Your task to perform on an android device: see tabs open on other devices in the chrome app Image 0: 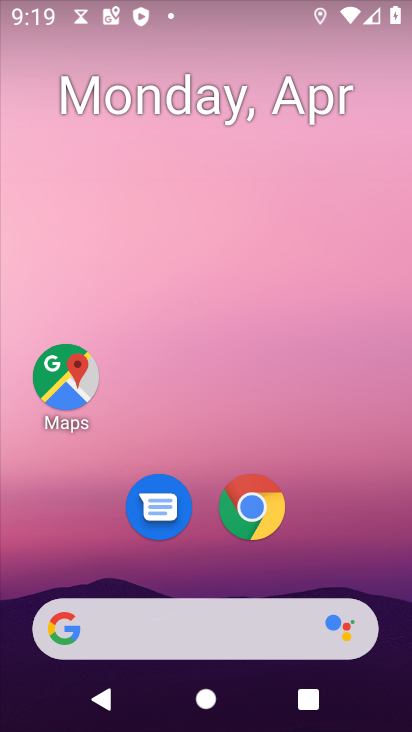
Step 0: click (264, 505)
Your task to perform on an android device: see tabs open on other devices in the chrome app Image 1: 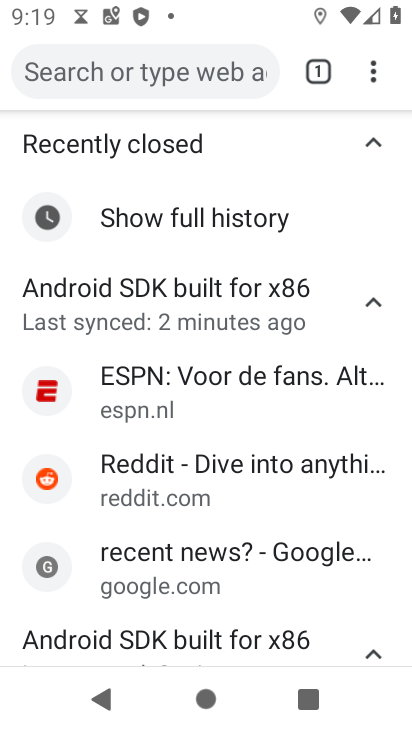
Step 1: click (369, 80)
Your task to perform on an android device: see tabs open on other devices in the chrome app Image 2: 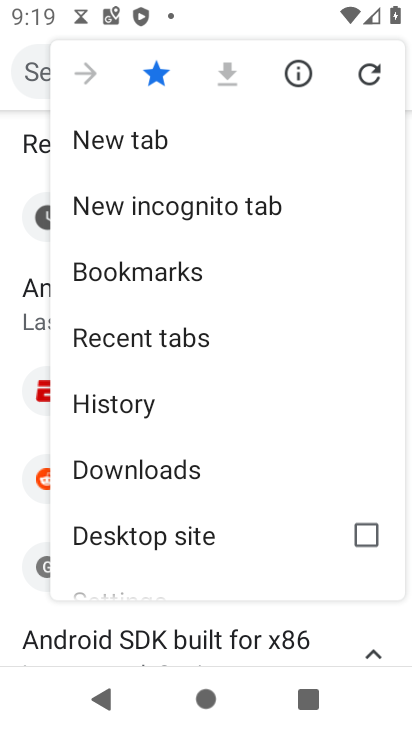
Step 2: click (194, 342)
Your task to perform on an android device: see tabs open on other devices in the chrome app Image 3: 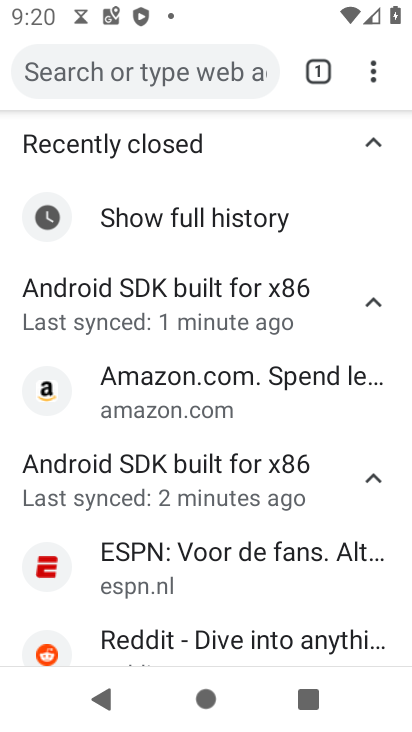
Step 3: task complete